Your task to perform on an android device: Do I have any events today? Image 0: 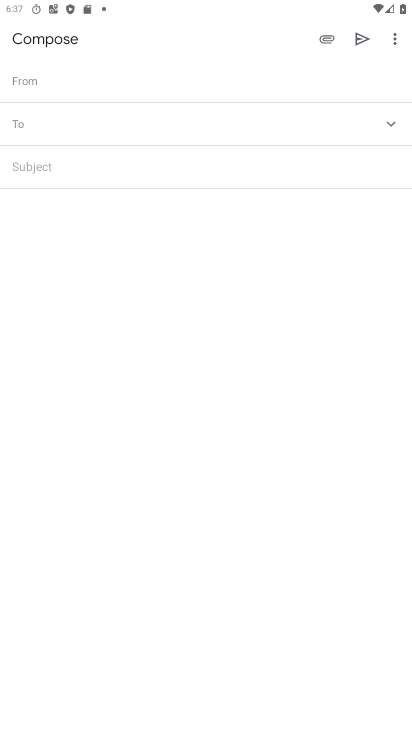
Step 0: press home button
Your task to perform on an android device: Do I have any events today? Image 1: 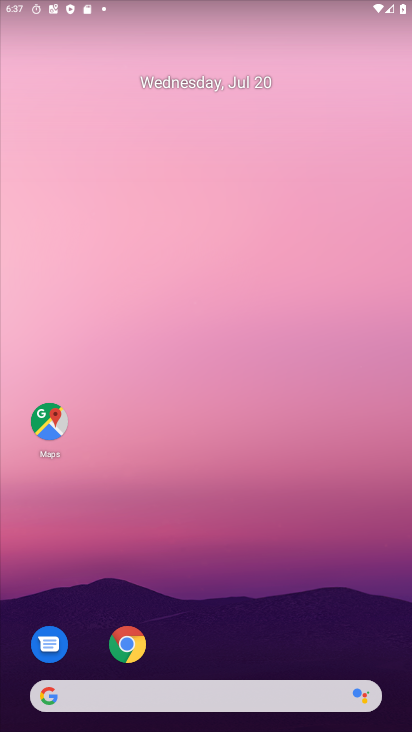
Step 1: drag from (298, 656) to (270, 84)
Your task to perform on an android device: Do I have any events today? Image 2: 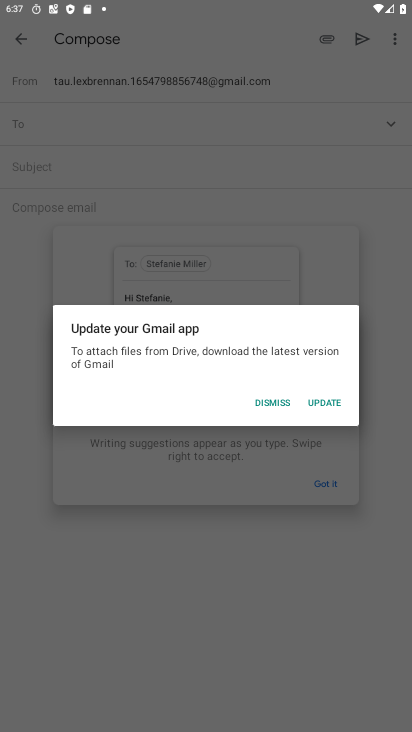
Step 2: click (269, 403)
Your task to perform on an android device: Do I have any events today? Image 3: 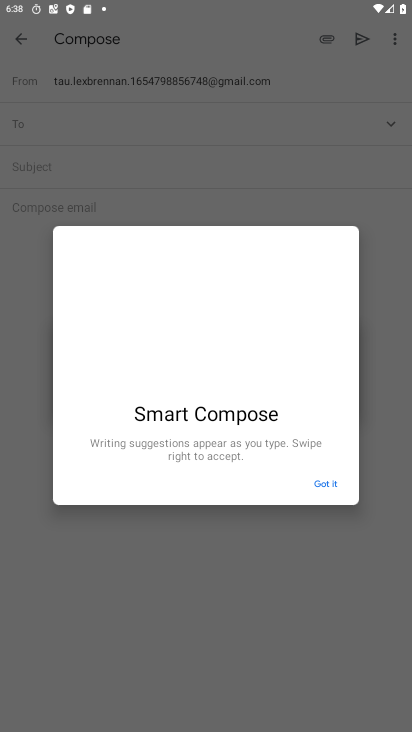
Step 3: press home button
Your task to perform on an android device: Do I have any events today? Image 4: 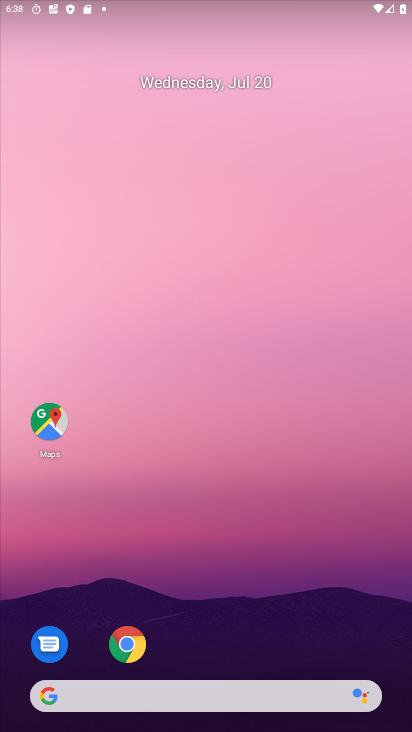
Step 4: drag from (318, 645) to (300, 117)
Your task to perform on an android device: Do I have any events today? Image 5: 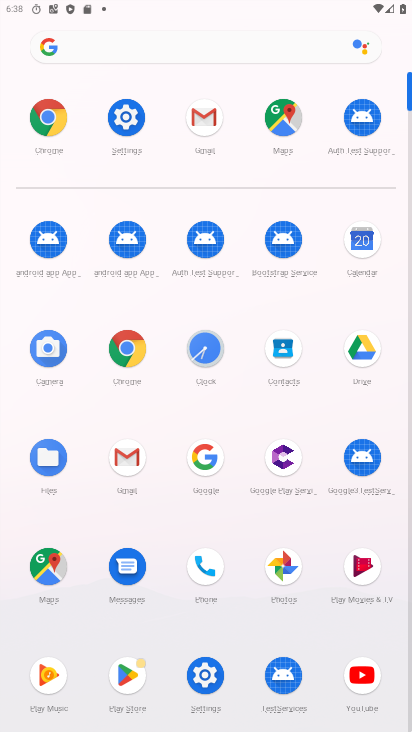
Step 5: click (358, 247)
Your task to perform on an android device: Do I have any events today? Image 6: 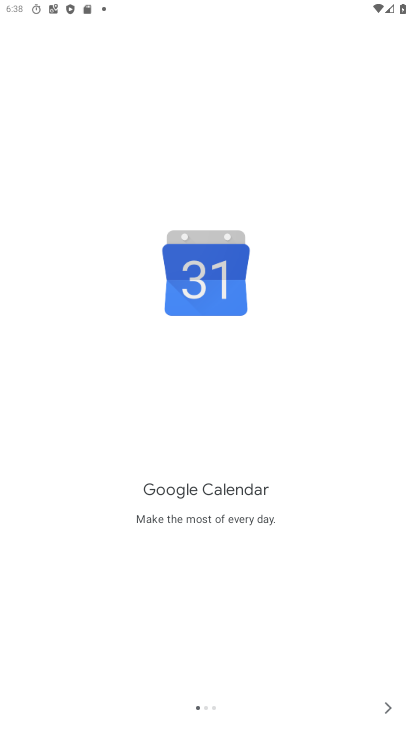
Step 6: click (382, 701)
Your task to perform on an android device: Do I have any events today? Image 7: 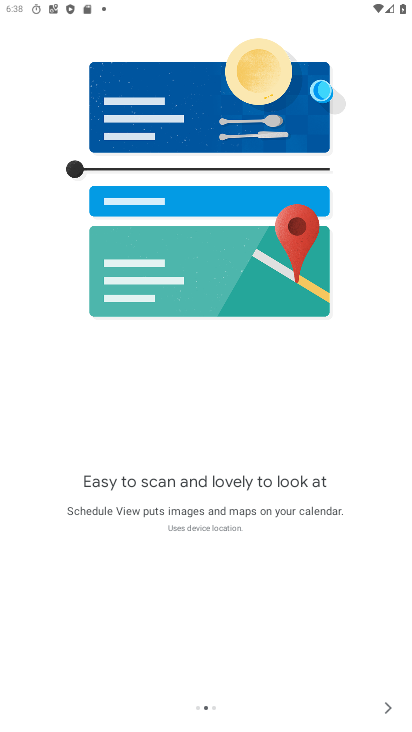
Step 7: click (392, 710)
Your task to perform on an android device: Do I have any events today? Image 8: 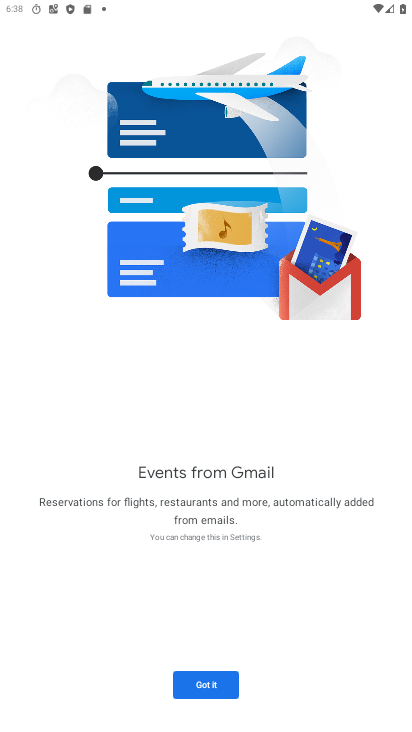
Step 8: click (227, 679)
Your task to perform on an android device: Do I have any events today? Image 9: 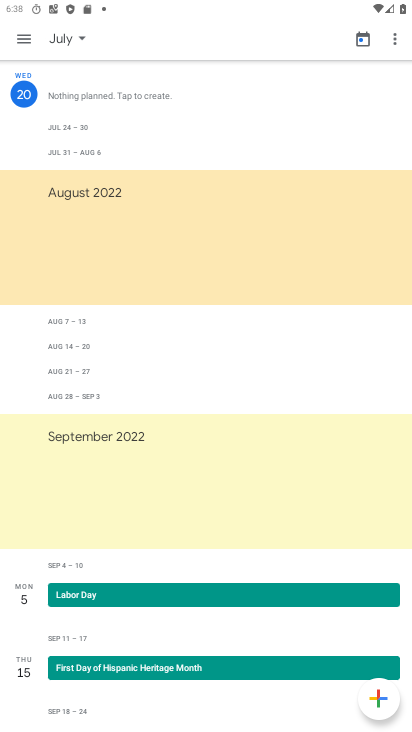
Step 9: click (76, 36)
Your task to perform on an android device: Do I have any events today? Image 10: 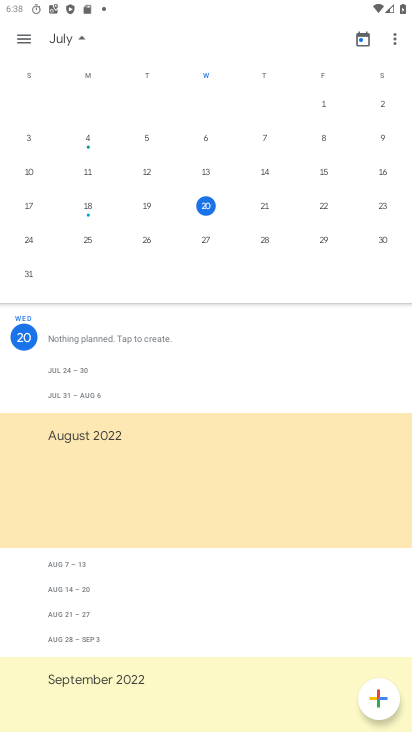
Step 10: click (208, 207)
Your task to perform on an android device: Do I have any events today? Image 11: 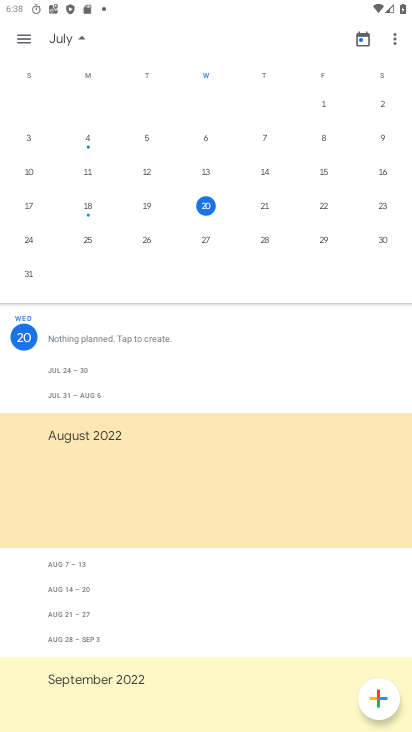
Step 11: task complete